Your task to perform on an android device: choose inbox layout in the gmail app Image 0: 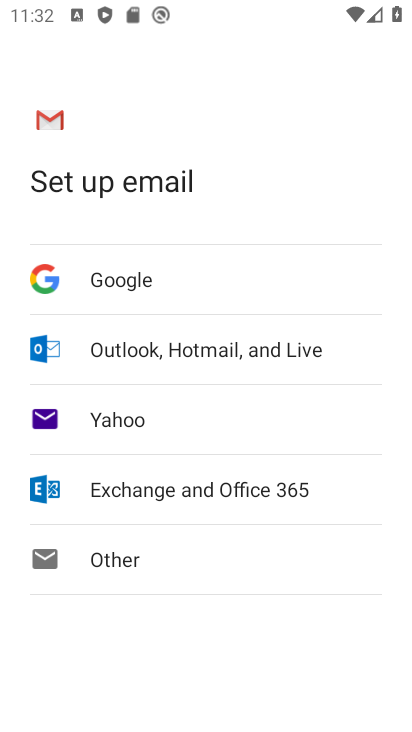
Step 0: press home button
Your task to perform on an android device: choose inbox layout in the gmail app Image 1: 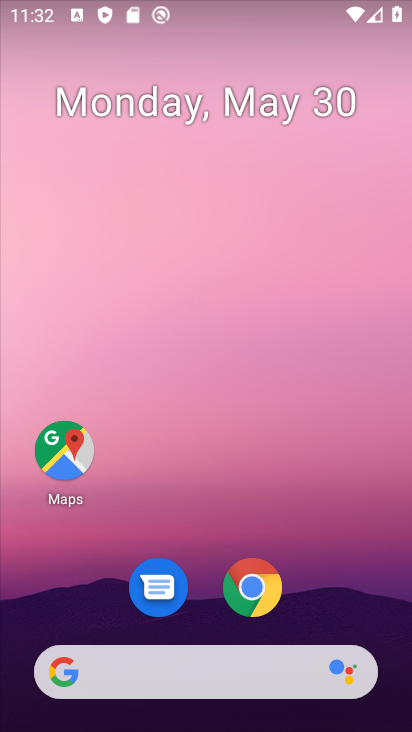
Step 1: click (134, 658)
Your task to perform on an android device: choose inbox layout in the gmail app Image 2: 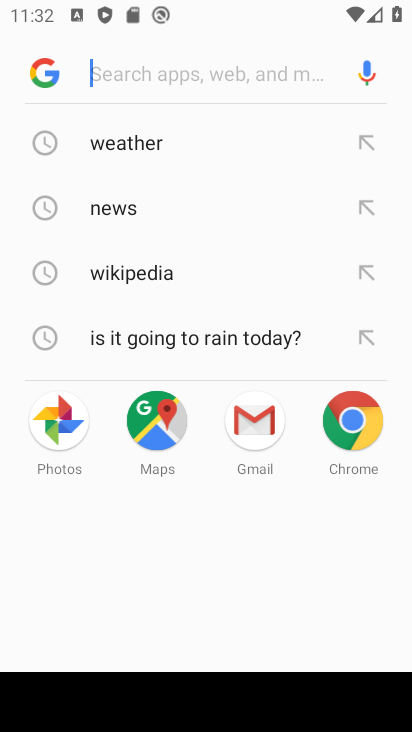
Step 2: click (242, 430)
Your task to perform on an android device: choose inbox layout in the gmail app Image 3: 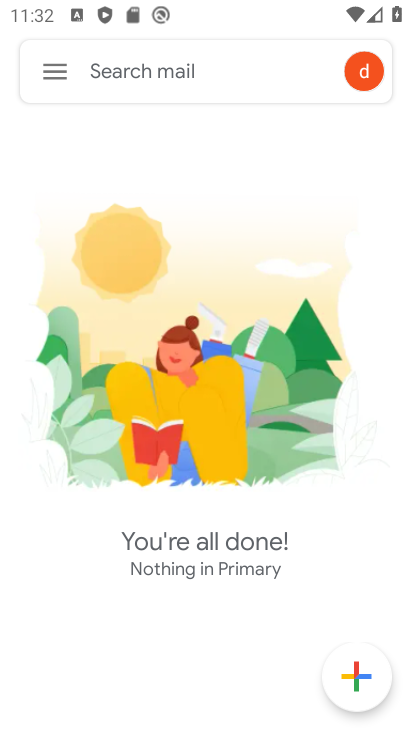
Step 3: click (65, 78)
Your task to perform on an android device: choose inbox layout in the gmail app Image 4: 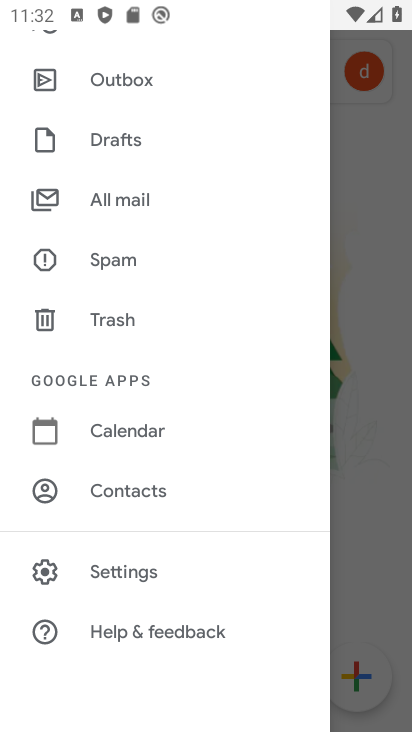
Step 4: click (131, 554)
Your task to perform on an android device: choose inbox layout in the gmail app Image 5: 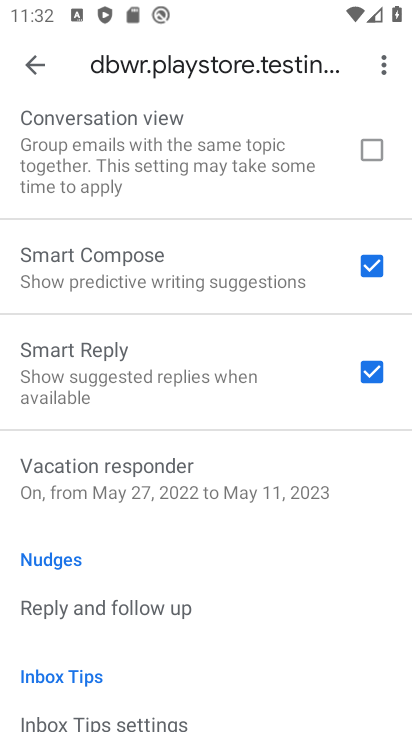
Step 5: drag from (195, 155) to (217, 618)
Your task to perform on an android device: choose inbox layout in the gmail app Image 6: 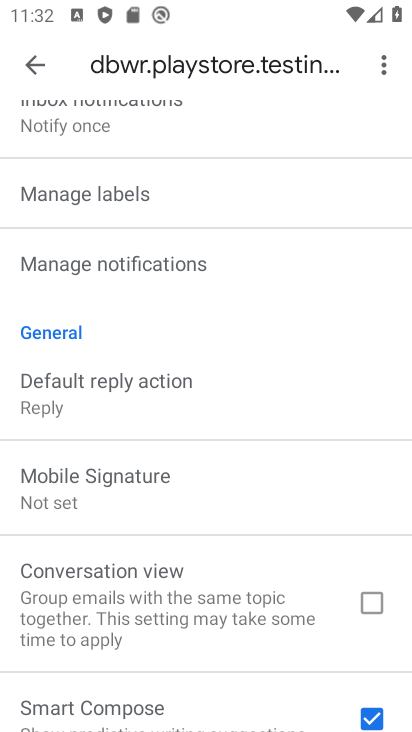
Step 6: drag from (179, 156) to (212, 545)
Your task to perform on an android device: choose inbox layout in the gmail app Image 7: 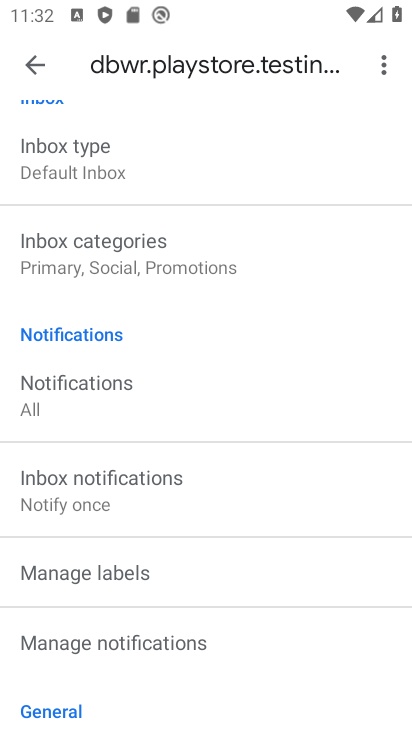
Step 7: click (137, 150)
Your task to perform on an android device: choose inbox layout in the gmail app Image 8: 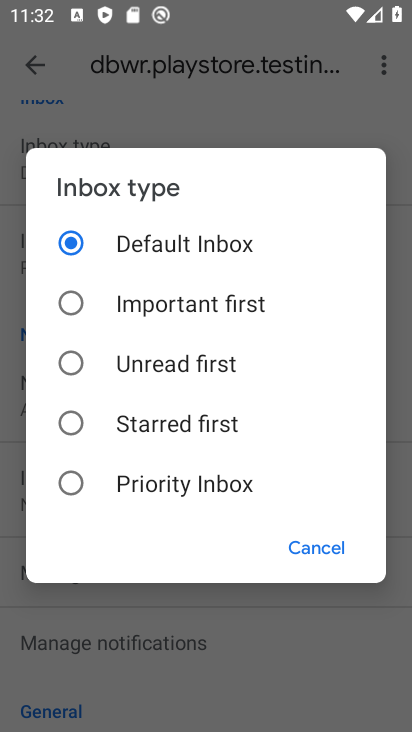
Step 8: click (198, 436)
Your task to perform on an android device: choose inbox layout in the gmail app Image 9: 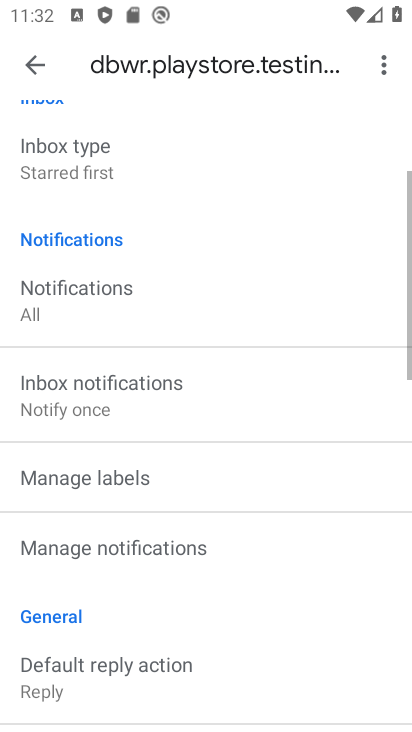
Step 9: task complete